Your task to perform on an android device: move an email to a new category in the gmail app Image 0: 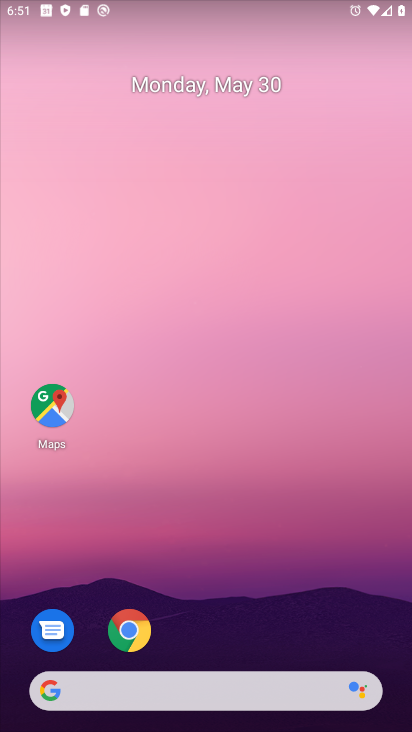
Step 0: drag from (369, 621) to (284, 42)
Your task to perform on an android device: move an email to a new category in the gmail app Image 1: 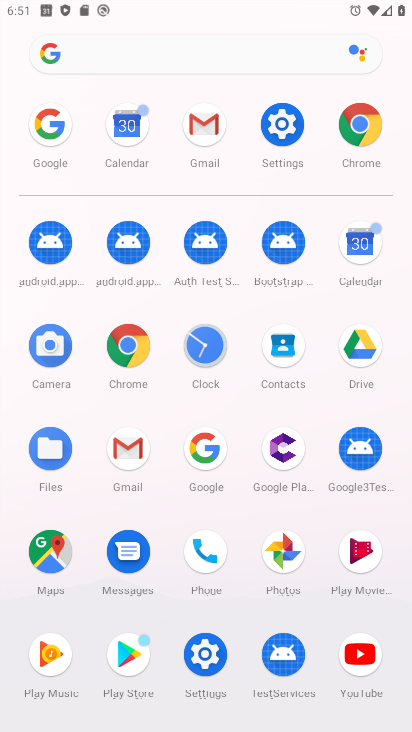
Step 1: click (113, 447)
Your task to perform on an android device: move an email to a new category in the gmail app Image 2: 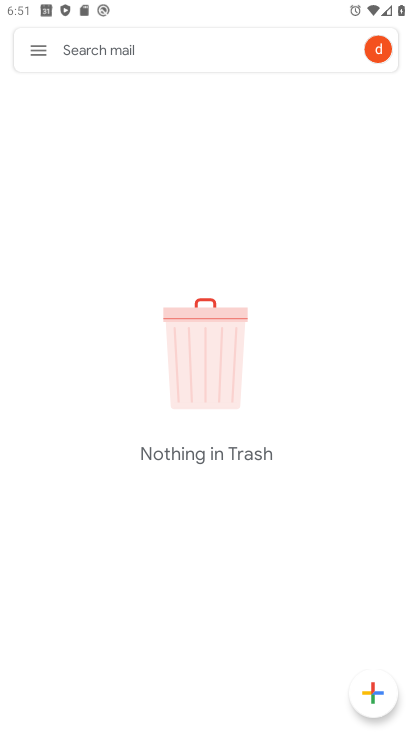
Step 2: task complete